Your task to perform on an android device: turn off improve location accuracy Image 0: 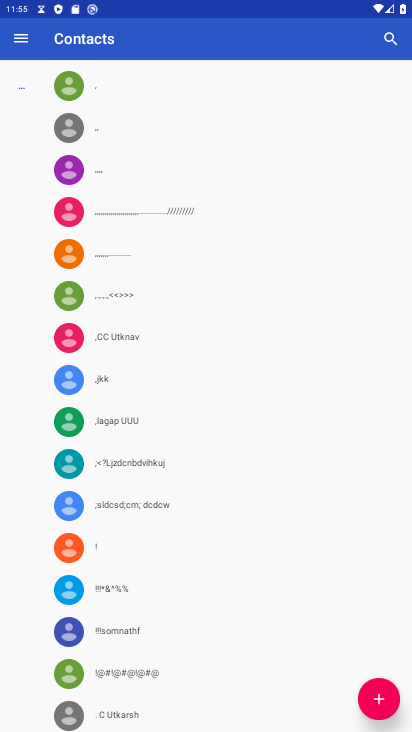
Step 0: press home button
Your task to perform on an android device: turn off improve location accuracy Image 1: 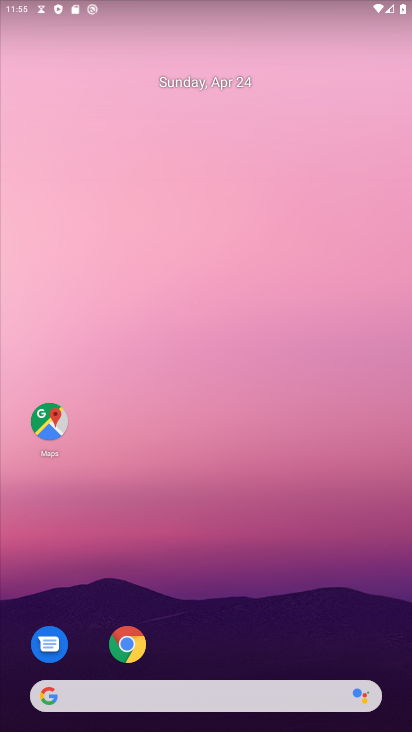
Step 1: drag from (356, 656) to (375, 115)
Your task to perform on an android device: turn off improve location accuracy Image 2: 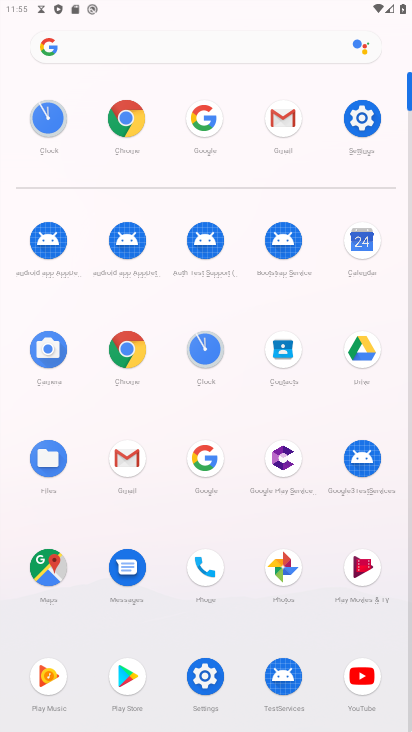
Step 2: click (362, 122)
Your task to perform on an android device: turn off improve location accuracy Image 3: 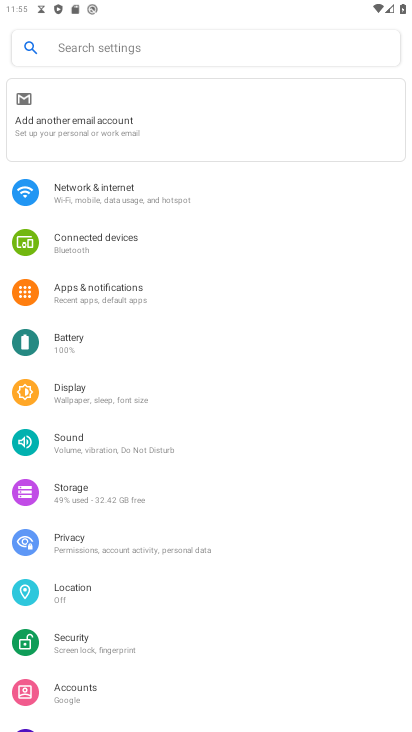
Step 3: click (72, 592)
Your task to perform on an android device: turn off improve location accuracy Image 4: 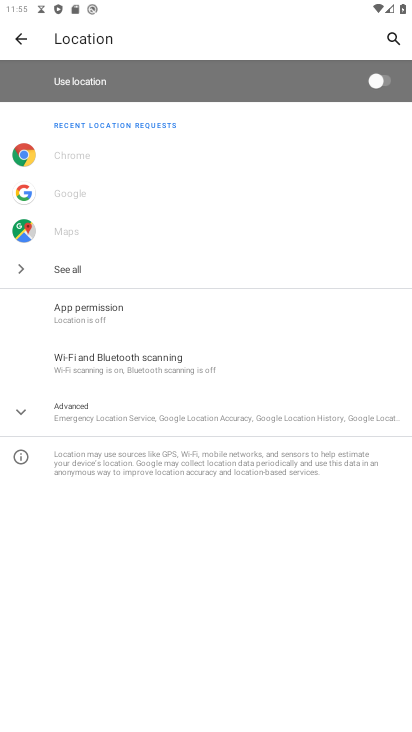
Step 4: click (24, 419)
Your task to perform on an android device: turn off improve location accuracy Image 5: 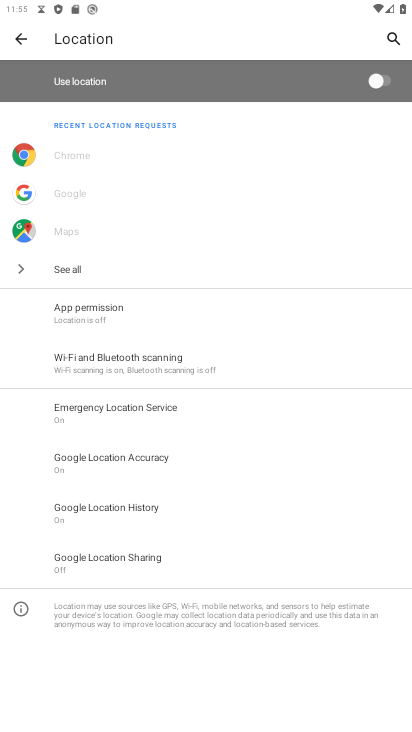
Step 5: click (103, 464)
Your task to perform on an android device: turn off improve location accuracy Image 6: 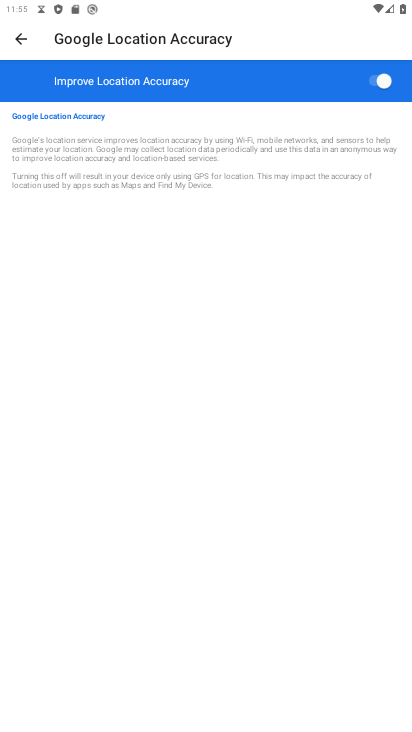
Step 6: click (383, 82)
Your task to perform on an android device: turn off improve location accuracy Image 7: 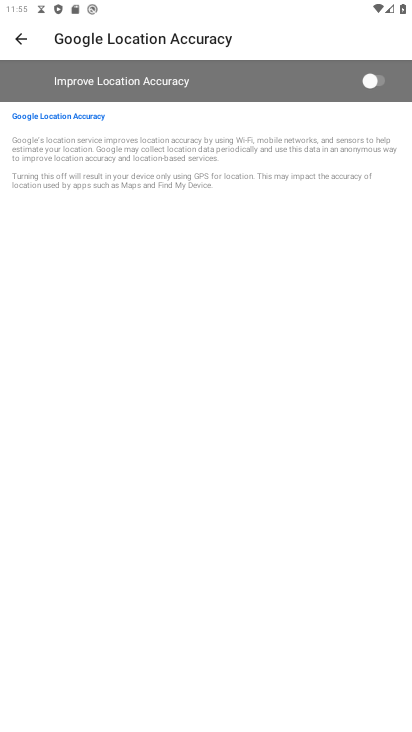
Step 7: task complete